Your task to perform on an android device: open app "Yahoo Mail" (install if not already installed) and go to login screen Image 0: 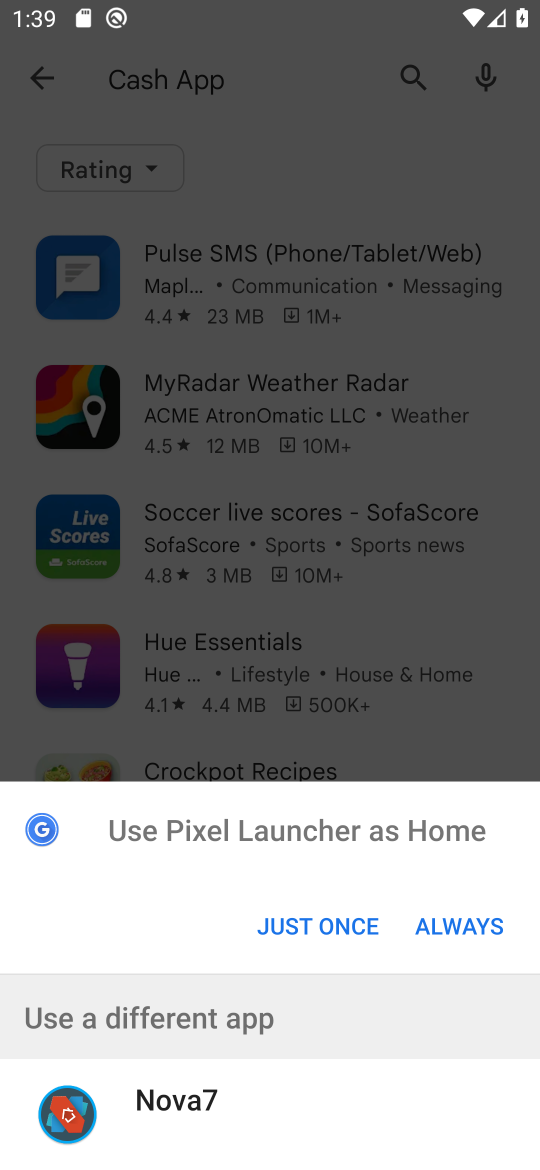
Step 0: click (313, 911)
Your task to perform on an android device: open app "Yahoo Mail" (install if not already installed) and go to login screen Image 1: 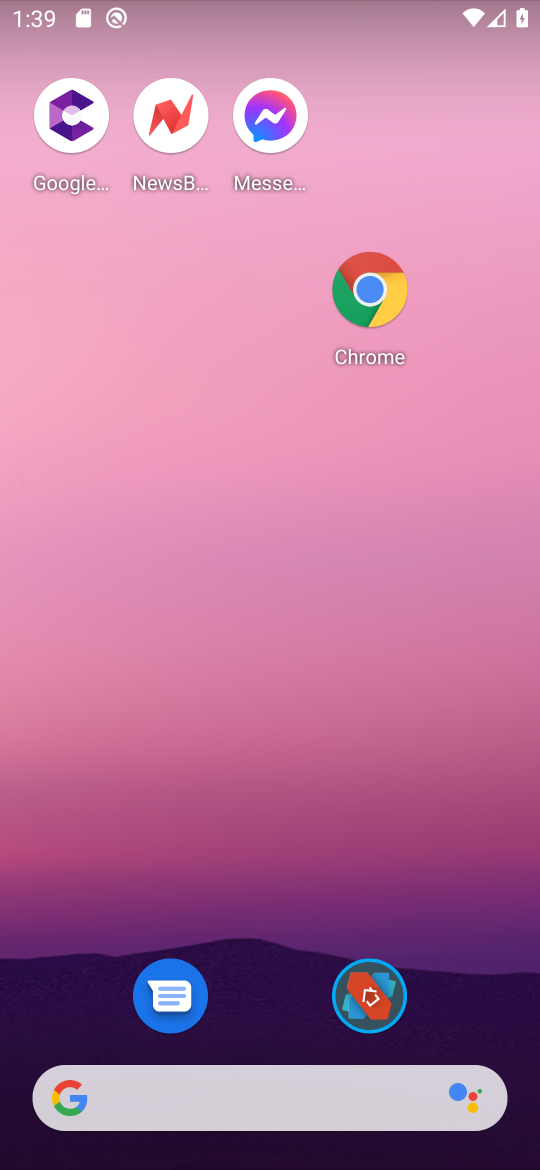
Step 1: drag from (259, 641) to (204, 16)
Your task to perform on an android device: open app "Yahoo Mail" (install if not already installed) and go to login screen Image 2: 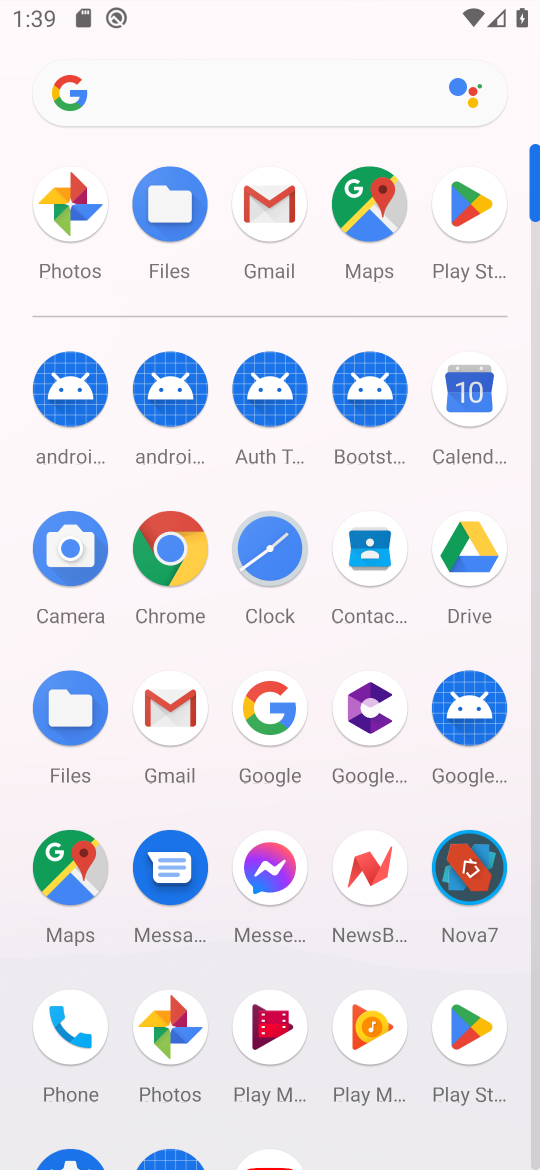
Step 2: click (475, 222)
Your task to perform on an android device: open app "Yahoo Mail" (install if not already installed) and go to login screen Image 3: 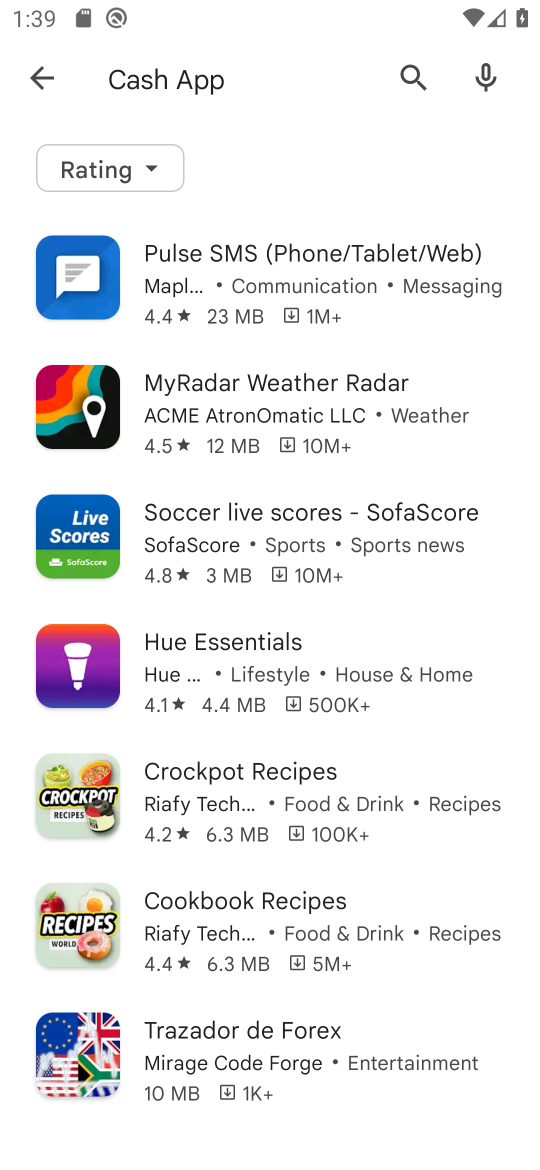
Step 3: press back button
Your task to perform on an android device: open app "Yahoo Mail" (install if not already installed) and go to login screen Image 4: 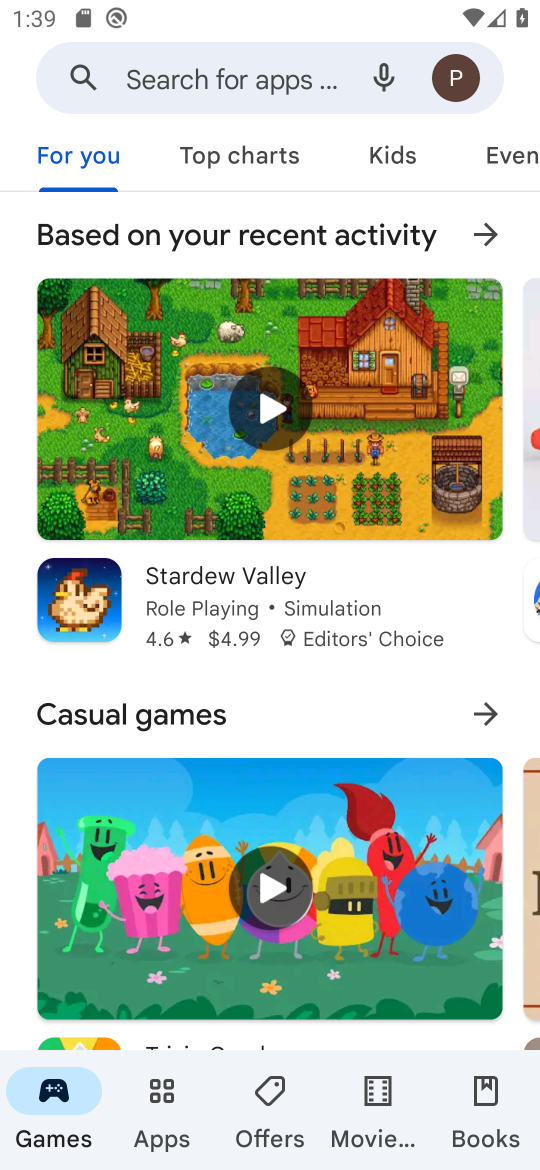
Step 4: click (199, 69)
Your task to perform on an android device: open app "Yahoo Mail" (install if not already installed) and go to login screen Image 5: 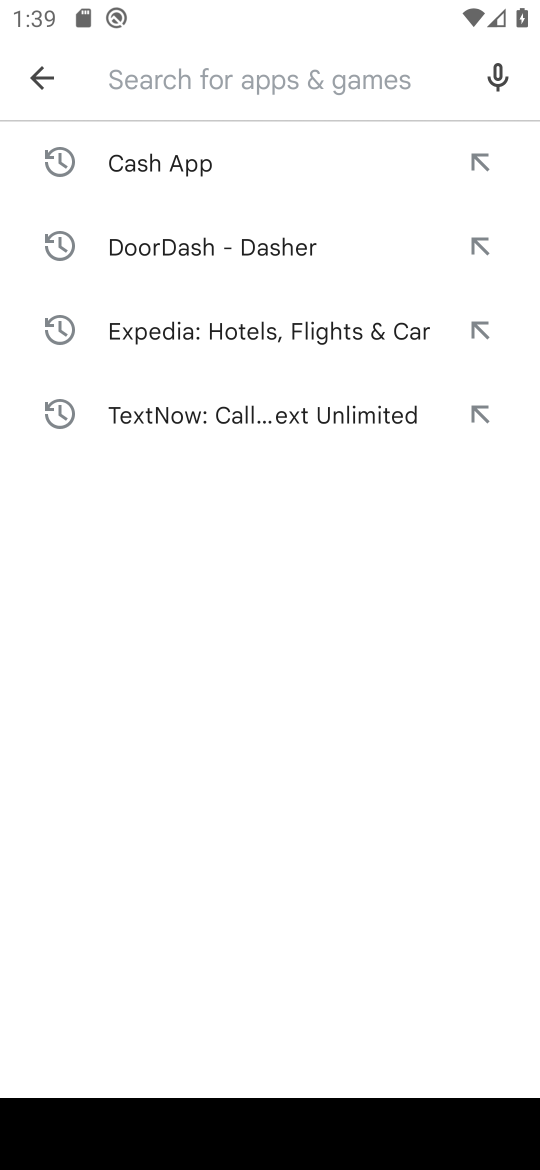
Step 5: type "Yahoo Mail"
Your task to perform on an android device: open app "Yahoo Mail" (install if not already installed) and go to login screen Image 6: 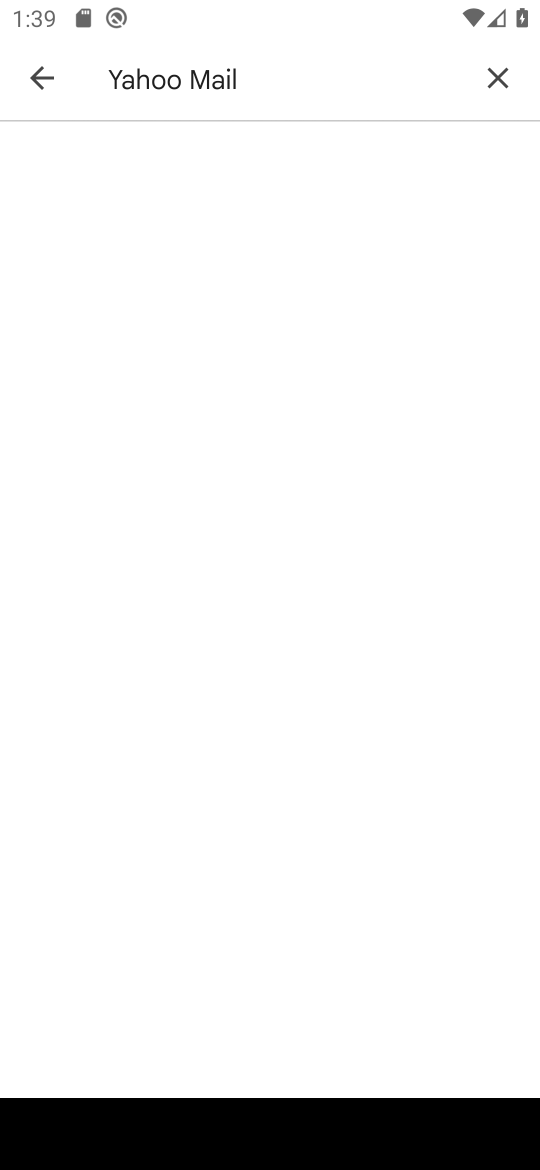
Step 6: press enter
Your task to perform on an android device: open app "Yahoo Mail" (install if not already installed) and go to login screen Image 7: 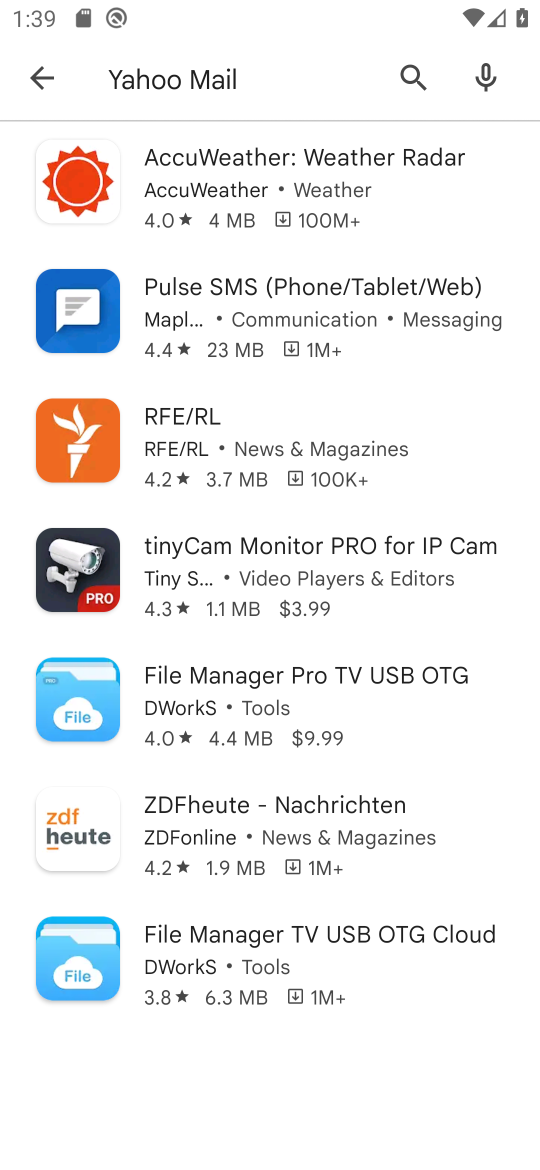
Step 7: task complete